Your task to perform on an android device: delete location history Image 0: 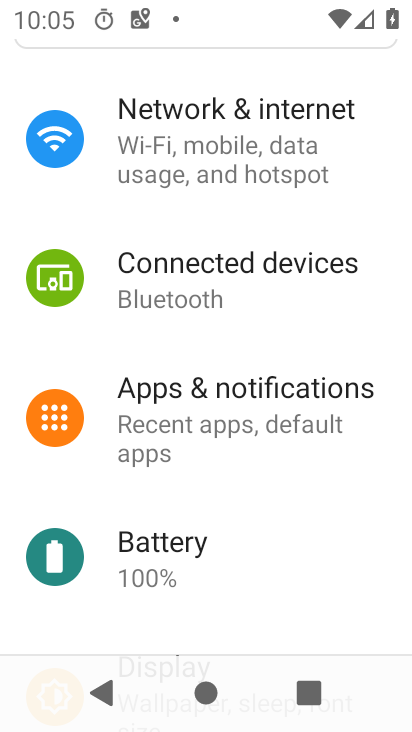
Step 0: press home button
Your task to perform on an android device: delete location history Image 1: 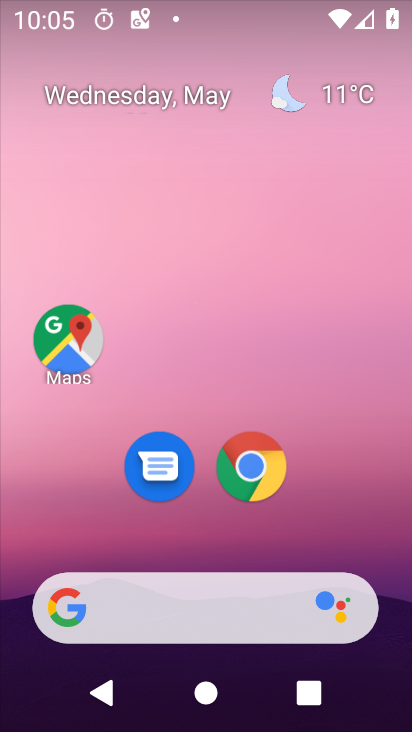
Step 1: drag from (252, 542) to (247, 183)
Your task to perform on an android device: delete location history Image 2: 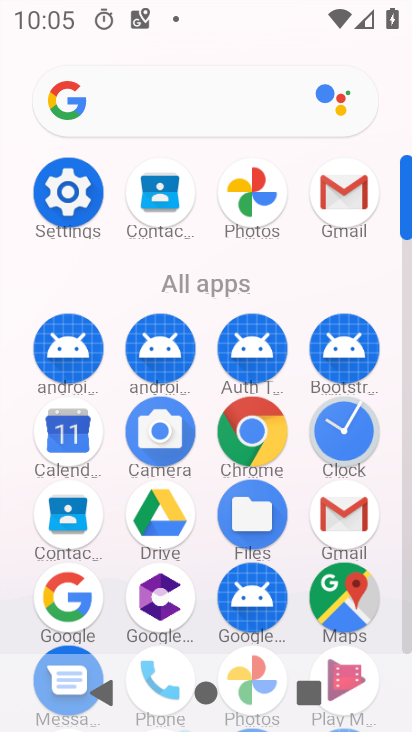
Step 2: click (359, 599)
Your task to perform on an android device: delete location history Image 3: 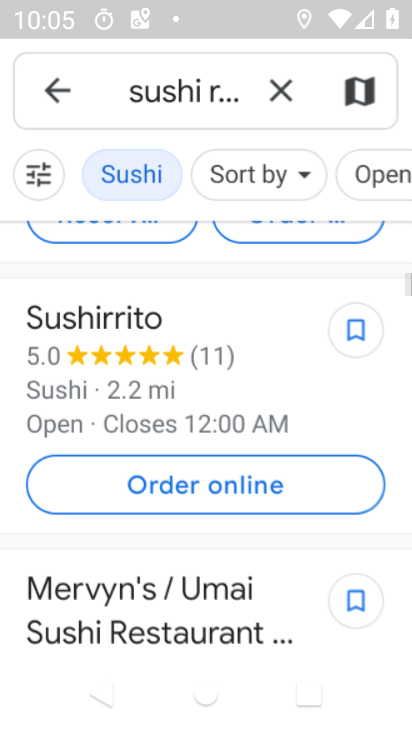
Step 3: click (59, 86)
Your task to perform on an android device: delete location history Image 4: 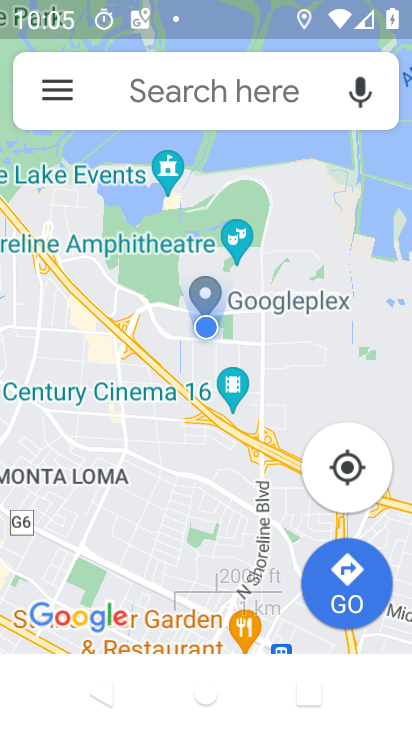
Step 4: click (59, 86)
Your task to perform on an android device: delete location history Image 5: 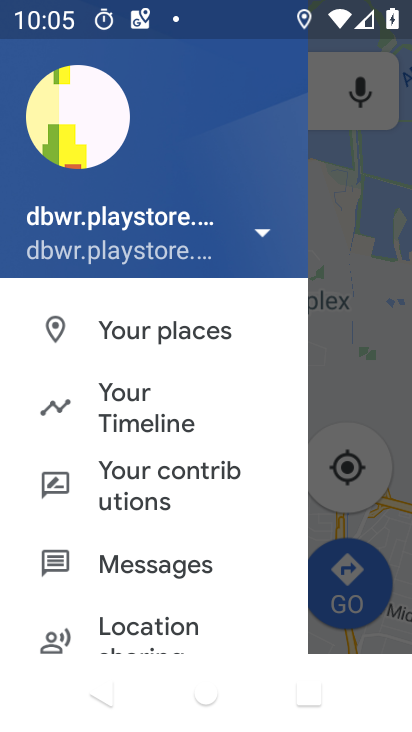
Step 5: drag from (153, 590) to (141, 346)
Your task to perform on an android device: delete location history Image 6: 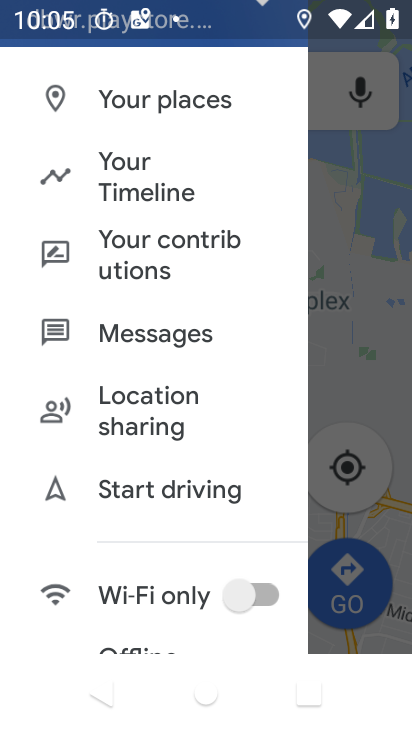
Step 6: drag from (153, 528) to (167, 254)
Your task to perform on an android device: delete location history Image 7: 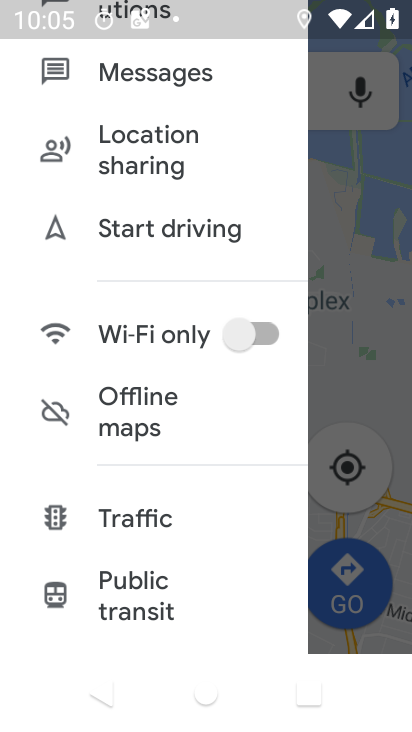
Step 7: drag from (167, 241) to (111, 552)
Your task to perform on an android device: delete location history Image 8: 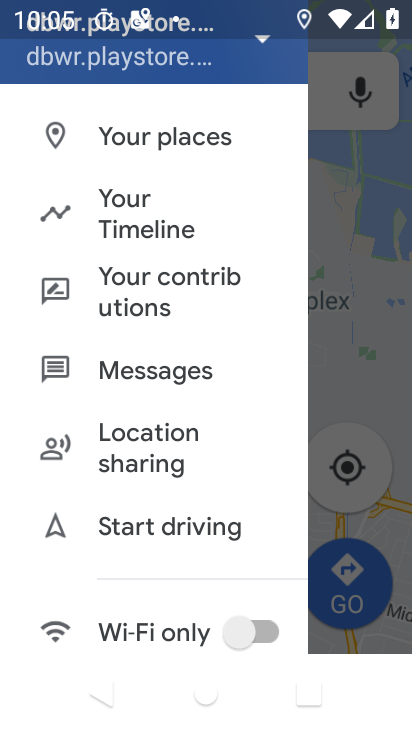
Step 8: click (141, 234)
Your task to perform on an android device: delete location history Image 9: 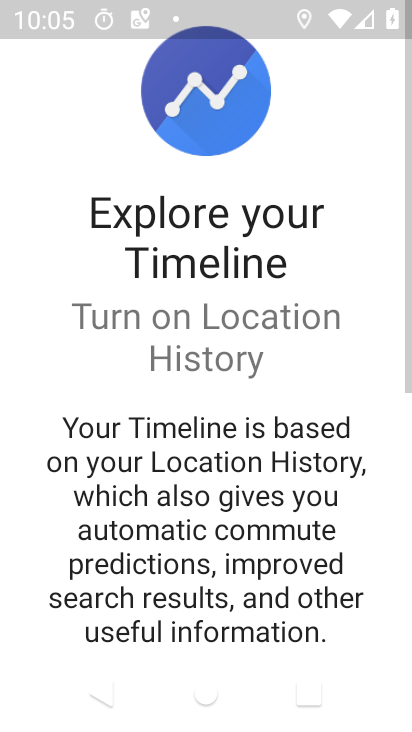
Step 9: drag from (236, 532) to (224, 231)
Your task to perform on an android device: delete location history Image 10: 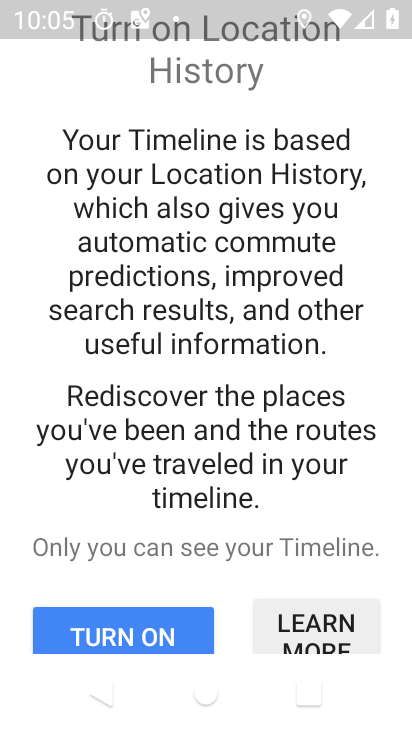
Step 10: drag from (226, 531) to (226, 184)
Your task to perform on an android device: delete location history Image 11: 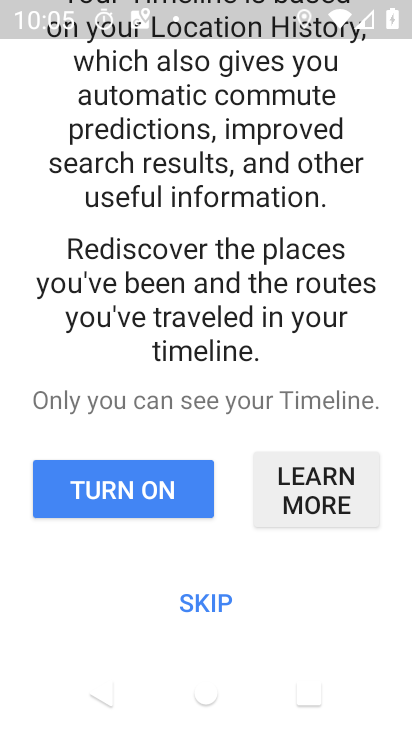
Step 11: click (223, 612)
Your task to perform on an android device: delete location history Image 12: 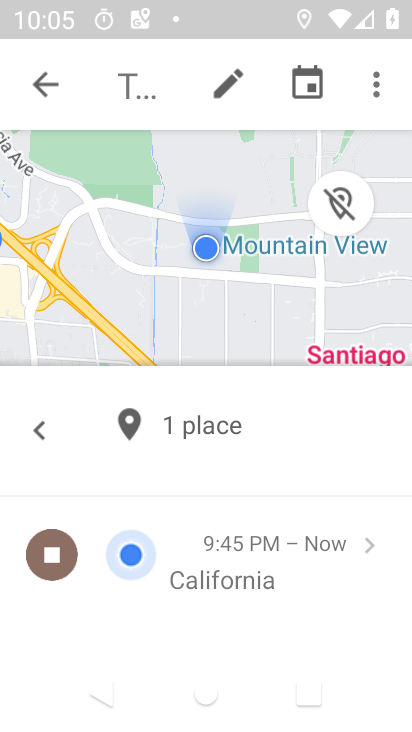
Step 12: click (388, 81)
Your task to perform on an android device: delete location history Image 13: 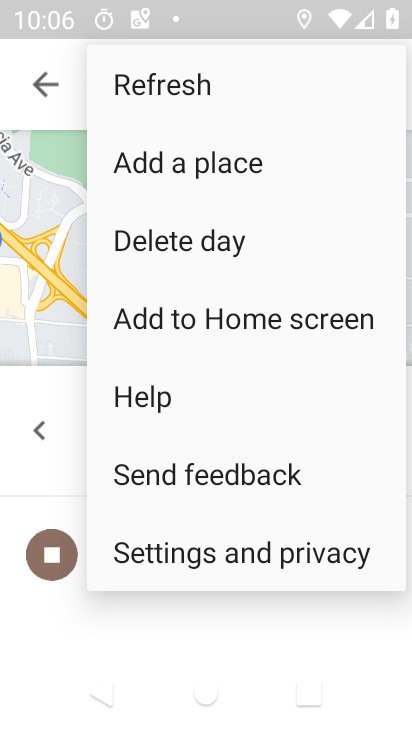
Step 13: click (222, 559)
Your task to perform on an android device: delete location history Image 14: 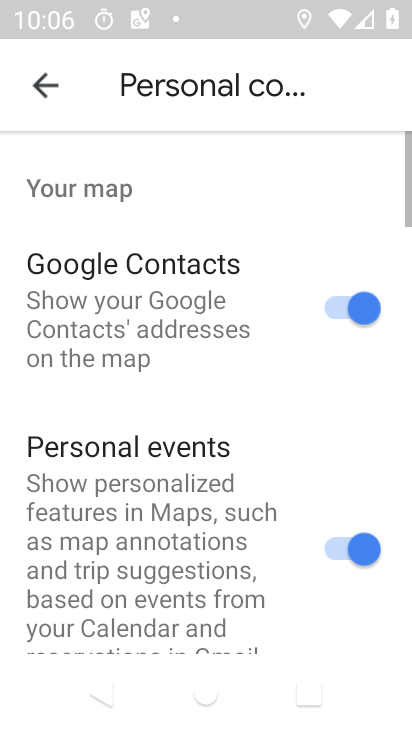
Step 14: drag from (222, 559) to (241, 123)
Your task to perform on an android device: delete location history Image 15: 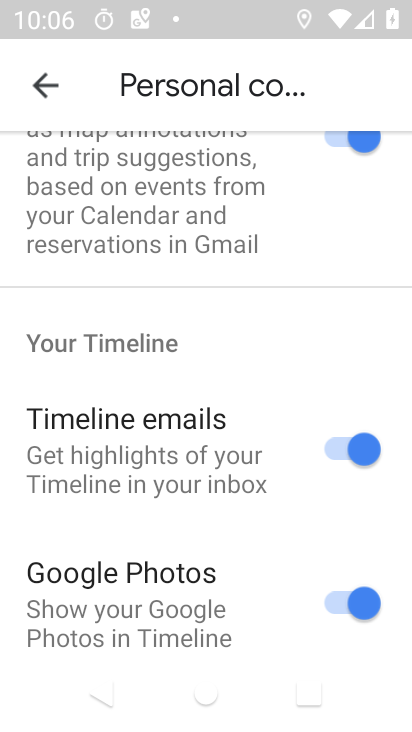
Step 15: drag from (188, 578) to (214, 116)
Your task to perform on an android device: delete location history Image 16: 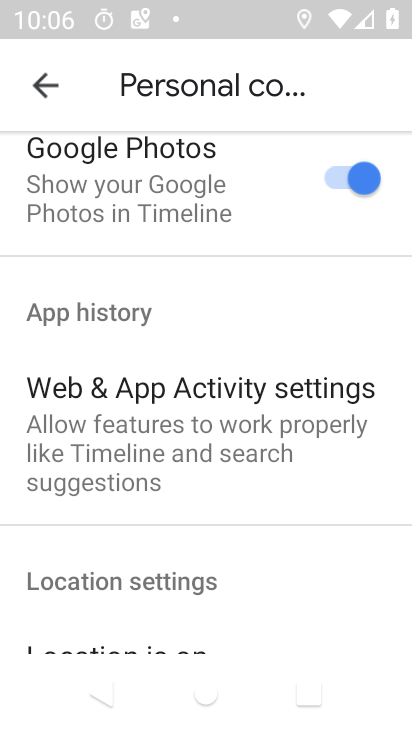
Step 16: drag from (181, 557) to (189, 162)
Your task to perform on an android device: delete location history Image 17: 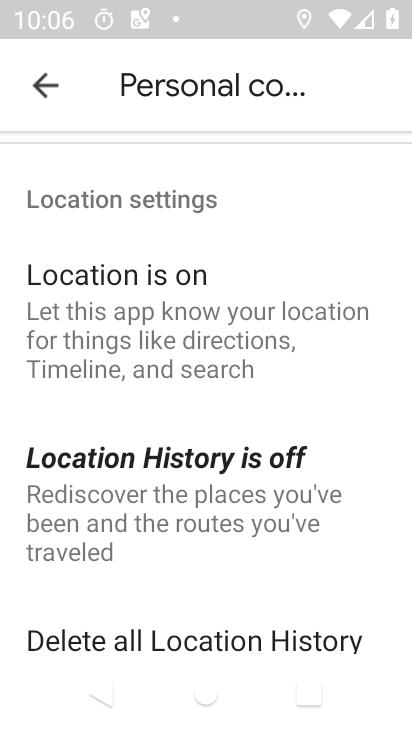
Step 17: drag from (174, 478) to (166, 169)
Your task to perform on an android device: delete location history Image 18: 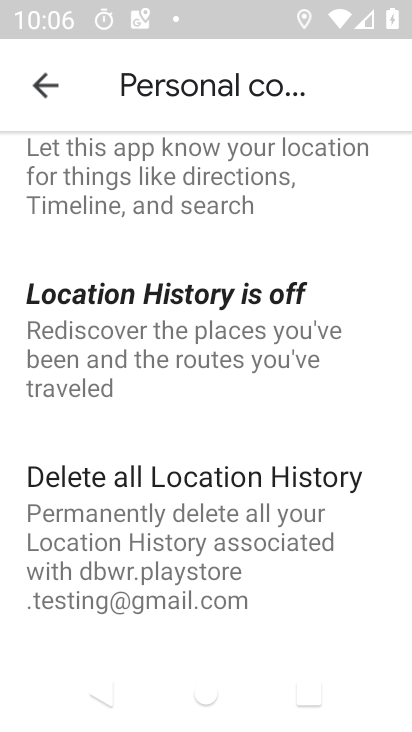
Step 18: click (186, 536)
Your task to perform on an android device: delete location history Image 19: 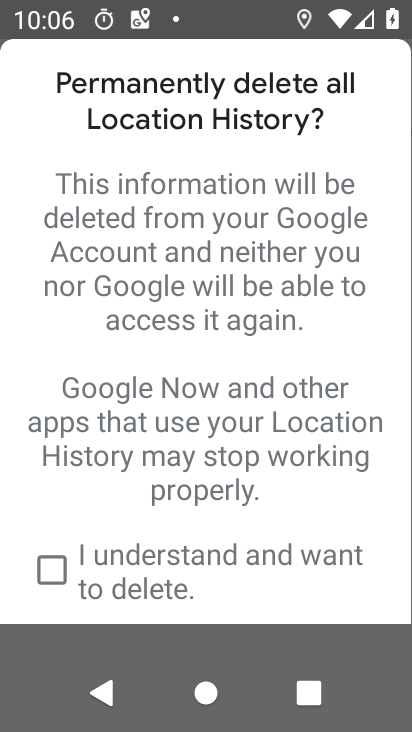
Step 19: click (46, 575)
Your task to perform on an android device: delete location history Image 20: 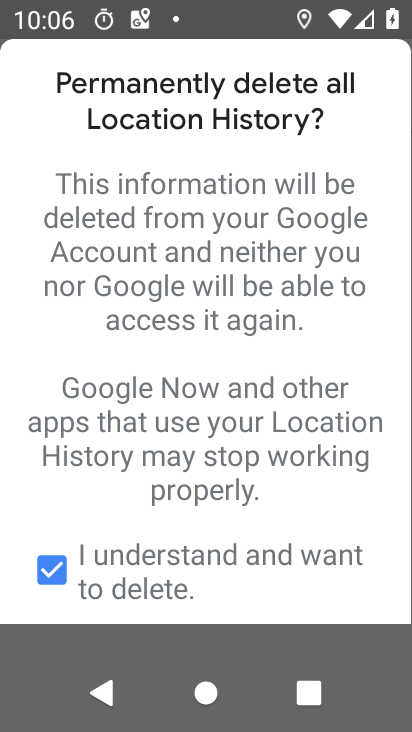
Step 20: drag from (300, 561) to (298, 356)
Your task to perform on an android device: delete location history Image 21: 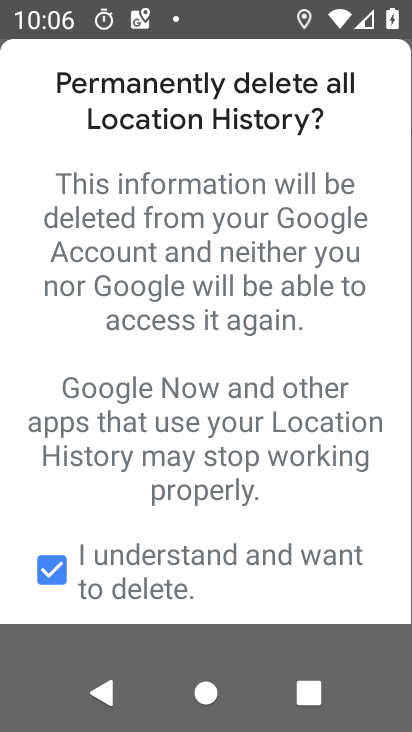
Step 21: drag from (231, 576) to (227, 200)
Your task to perform on an android device: delete location history Image 22: 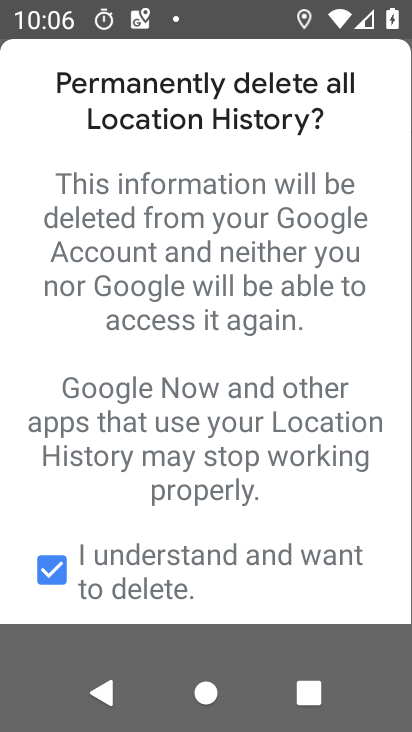
Step 22: click (222, 601)
Your task to perform on an android device: delete location history Image 23: 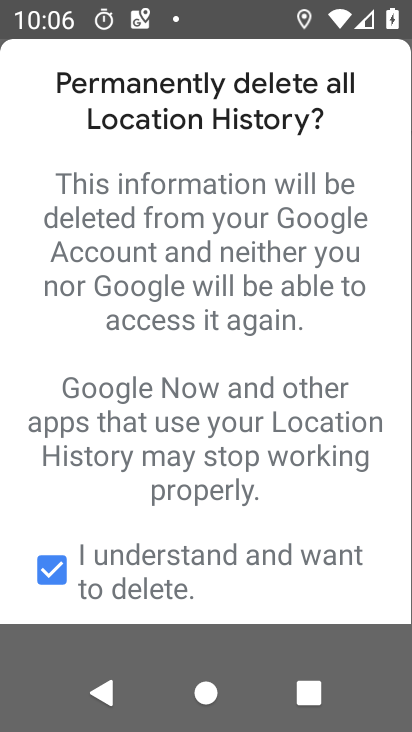
Step 23: drag from (222, 601) to (224, 311)
Your task to perform on an android device: delete location history Image 24: 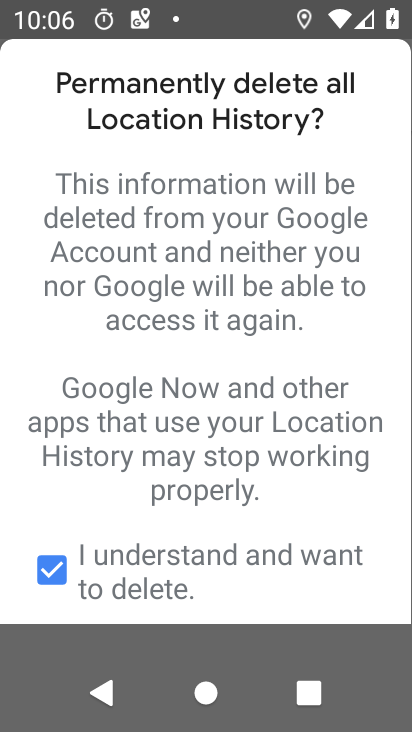
Step 24: press back button
Your task to perform on an android device: delete location history Image 25: 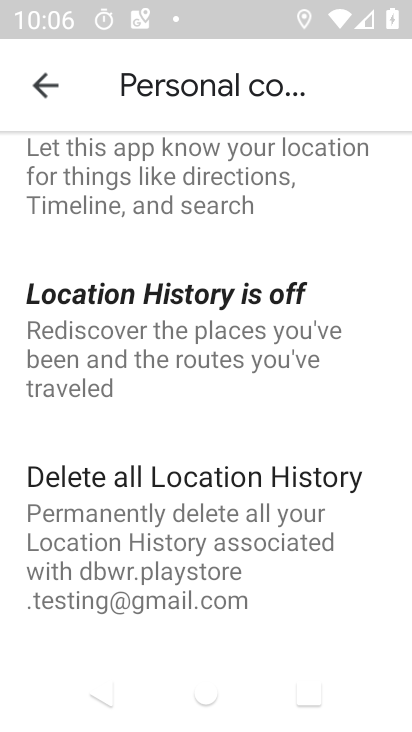
Step 25: click (217, 535)
Your task to perform on an android device: delete location history Image 26: 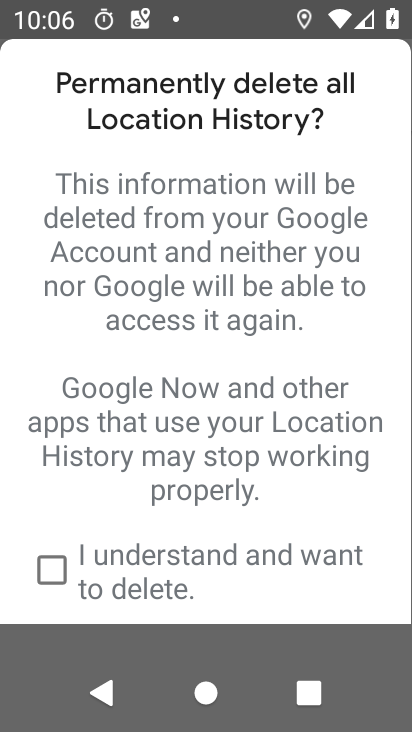
Step 26: click (176, 565)
Your task to perform on an android device: delete location history Image 27: 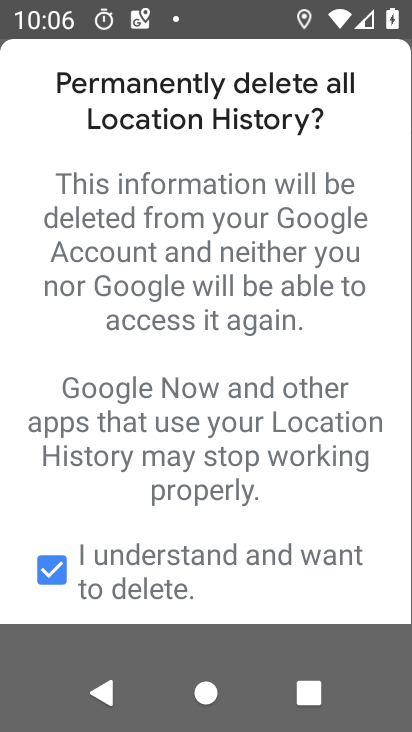
Step 27: click (56, 574)
Your task to perform on an android device: delete location history Image 28: 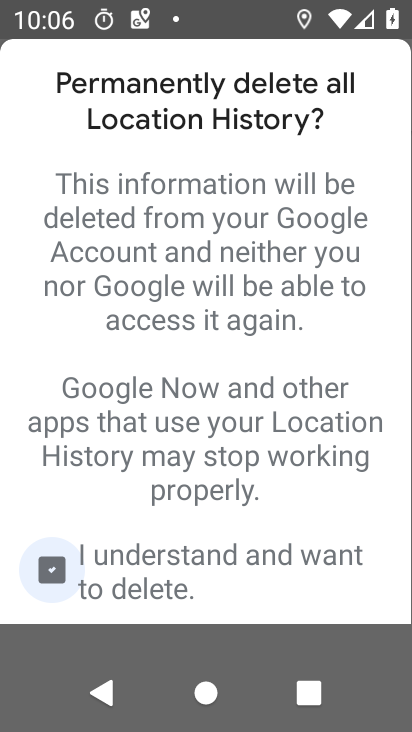
Step 28: click (56, 574)
Your task to perform on an android device: delete location history Image 29: 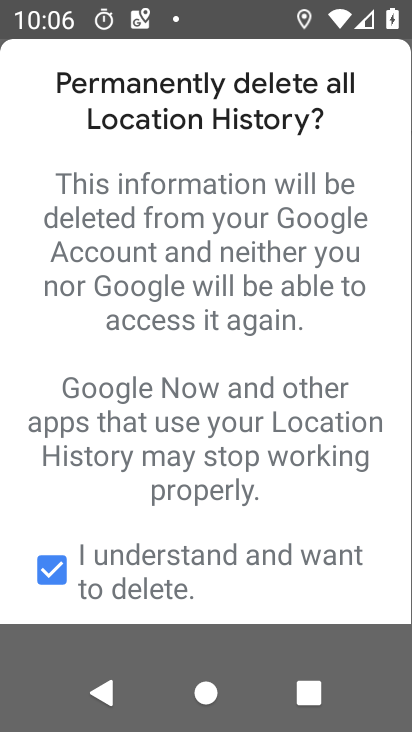
Step 29: task complete